Your task to perform on an android device: turn smart compose on in the gmail app Image 0: 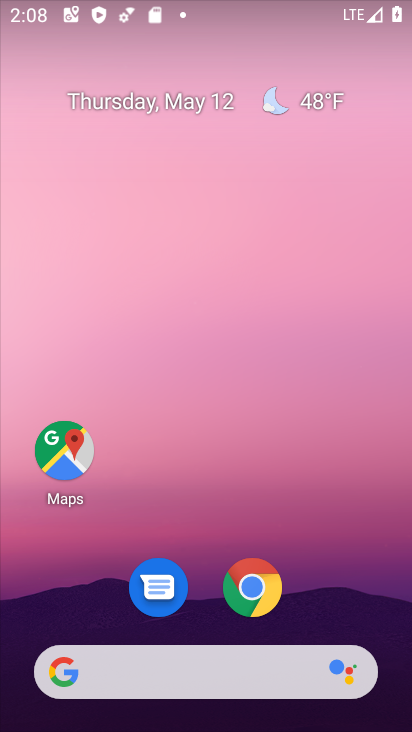
Step 0: drag from (178, 671) to (178, 218)
Your task to perform on an android device: turn smart compose on in the gmail app Image 1: 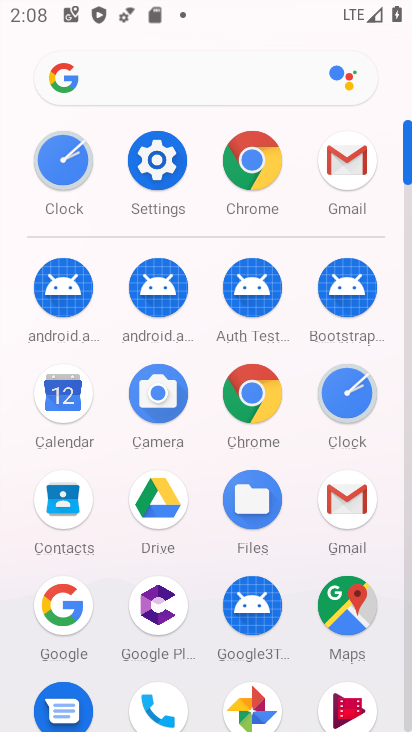
Step 1: drag from (208, 586) to (206, 417)
Your task to perform on an android device: turn smart compose on in the gmail app Image 2: 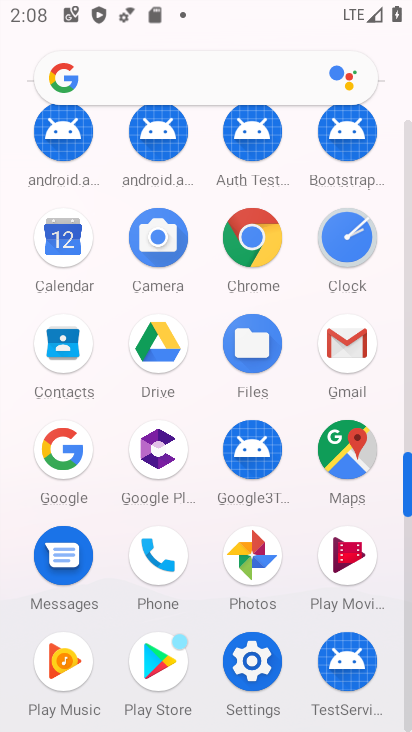
Step 2: click (335, 368)
Your task to perform on an android device: turn smart compose on in the gmail app Image 3: 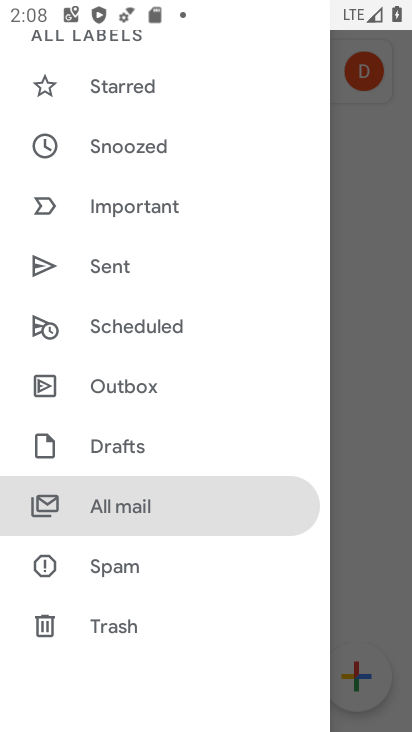
Step 3: drag from (117, 604) to (171, 270)
Your task to perform on an android device: turn smart compose on in the gmail app Image 4: 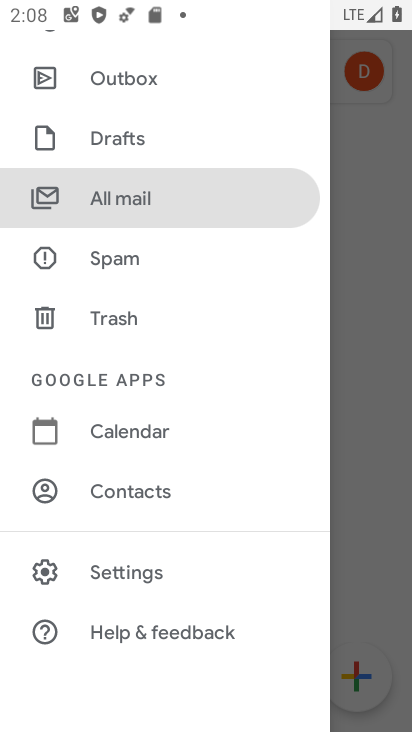
Step 4: click (157, 571)
Your task to perform on an android device: turn smart compose on in the gmail app Image 5: 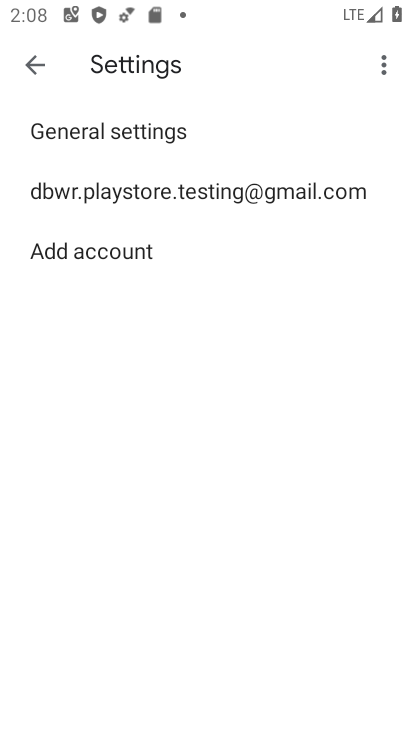
Step 5: click (145, 201)
Your task to perform on an android device: turn smart compose on in the gmail app Image 6: 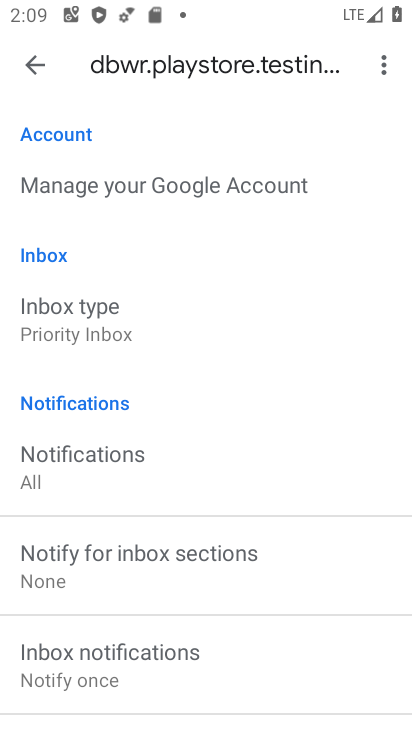
Step 6: task complete